Your task to perform on an android device: Go to Google Image 0: 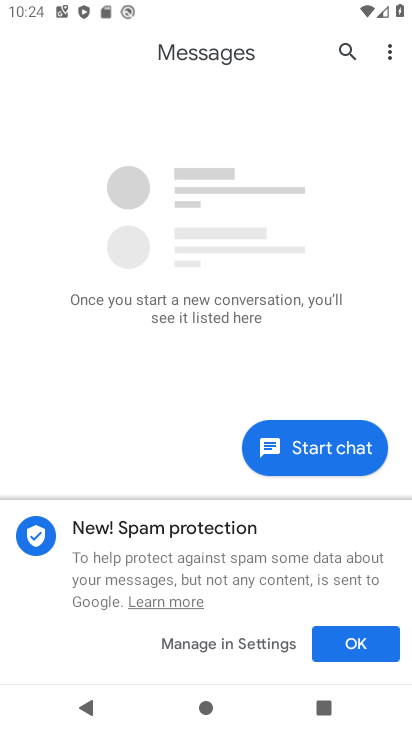
Step 0: press home button
Your task to perform on an android device: Go to Google Image 1: 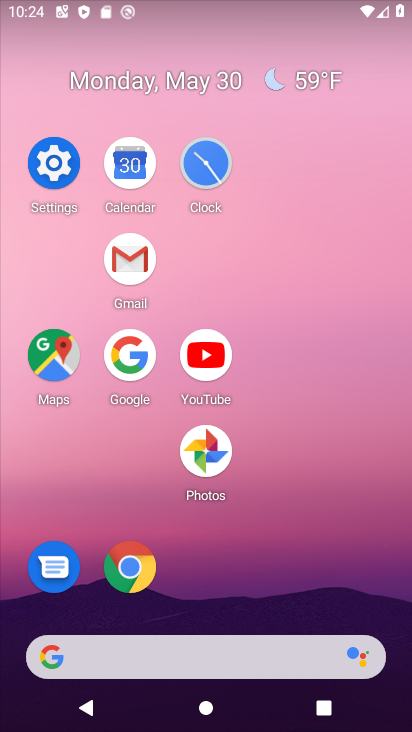
Step 1: click (135, 346)
Your task to perform on an android device: Go to Google Image 2: 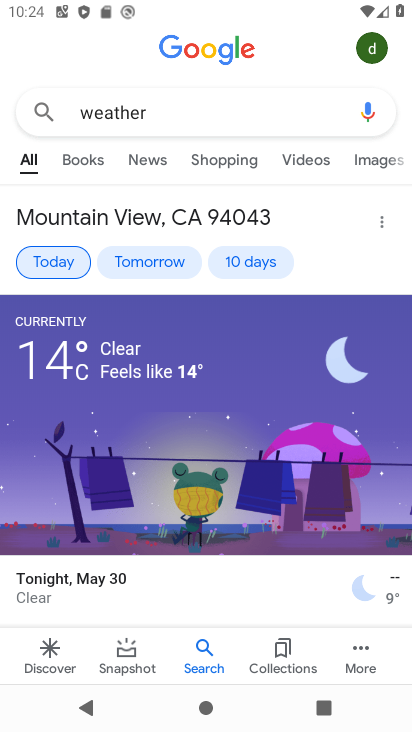
Step 2: task complete